Your task to perform on an android device: turn vacation reply on in the gmail app Image 0: 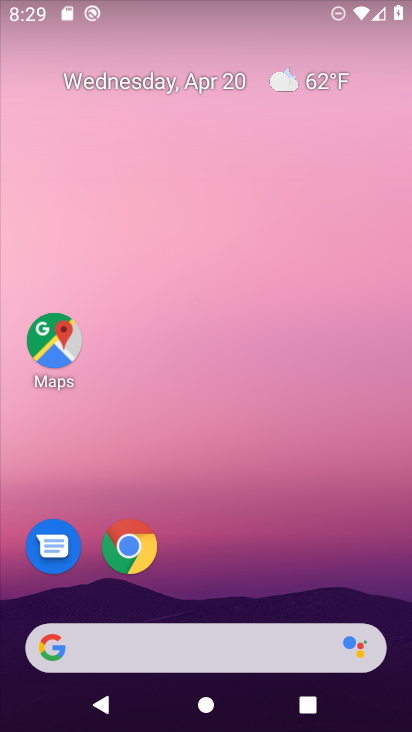
Step 0: drag from (271, 269) to (263, 82)
Your task to perform on an android device: turn vacation reply on in the gmail app Image 1: 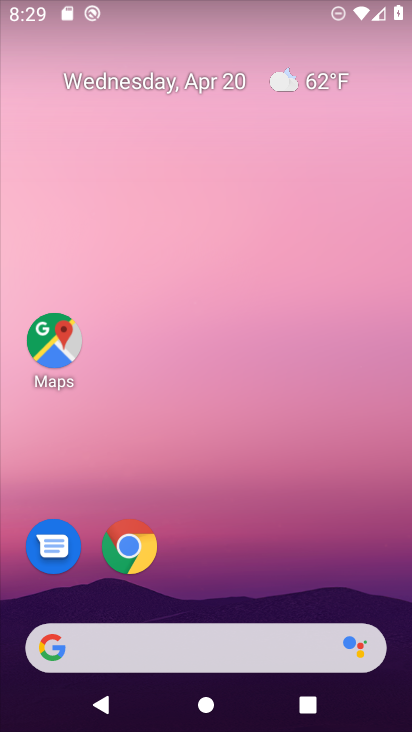
Step 1: drag from (252, 550) to (257, 57)
Your task to perform on an android device: turn vacation reply on in the gmail app Image 2: 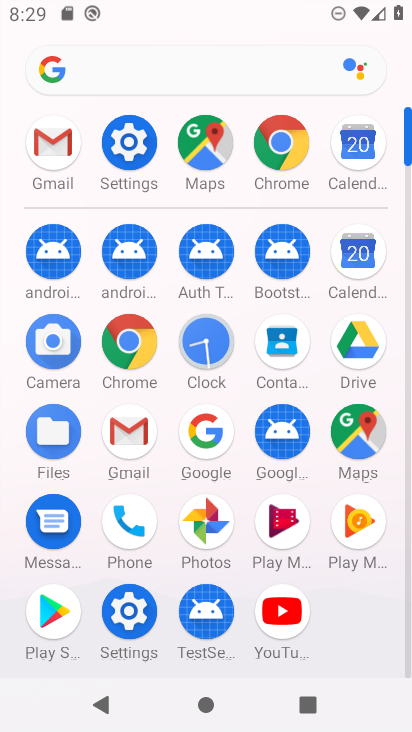
Step 2: click (51, 140)
Your task to perform on an android device: turn vacation reply on in the gmail app Image 3: 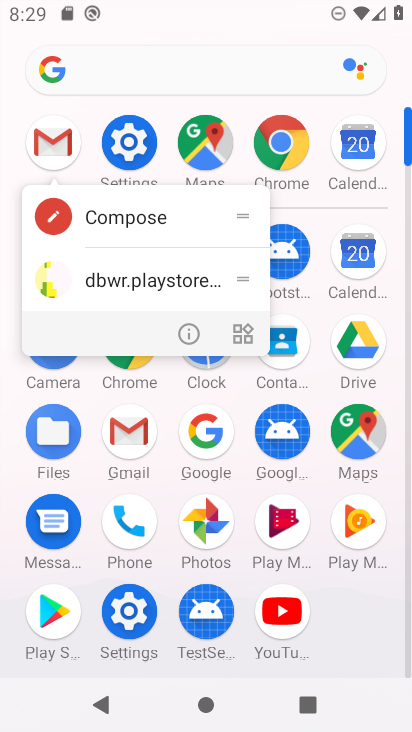
Step 3: click (51, 140)
Your task to perform on an android device: turn vacation reply on in the gmail app Image 4: 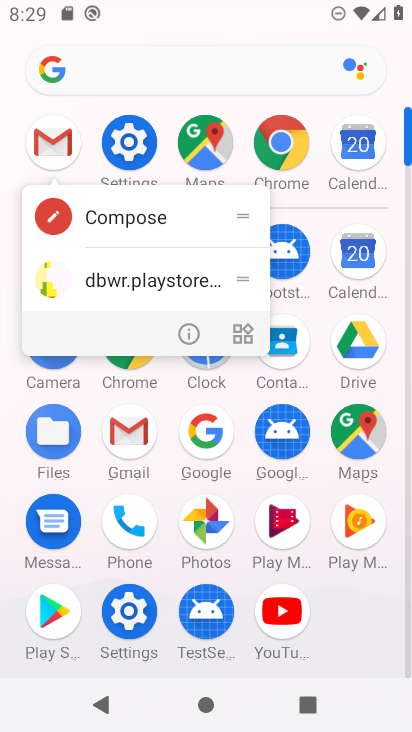
Step 4: click (51, 140)
Your task to perform on an android device: turn vacation reply on in the gmail app Image 5: 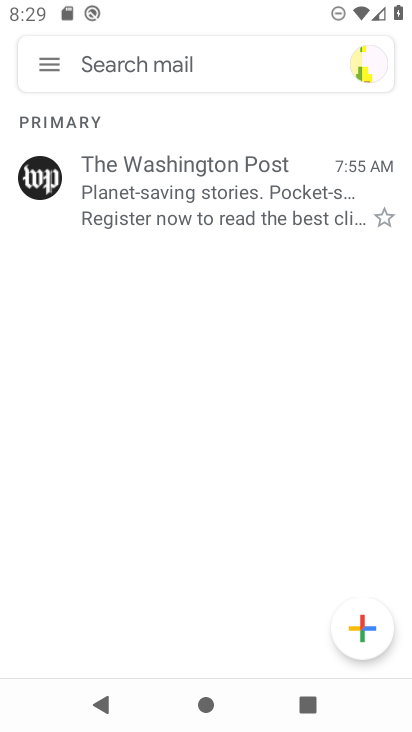
Step 5: click (49, 55)
Your task to perform on an android device: turn vacation reply on in the gmail app Image 6: 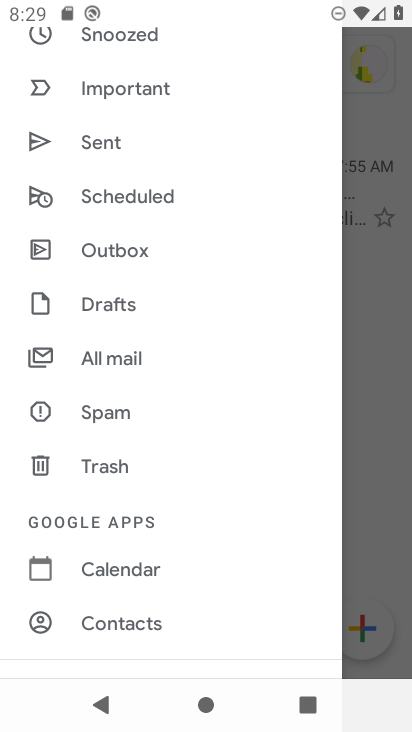
Step 6: drag from (203, 571) to (209, 211)
Your task to perform on an android device: turn vacation reply on in the gmail app Image 7: 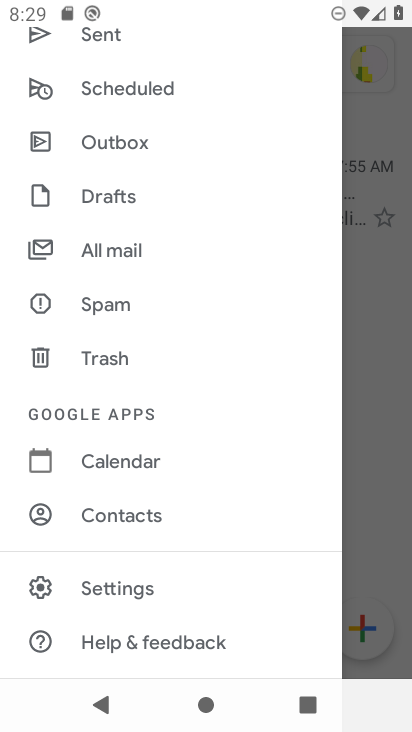
Step 7: click (155, 585)
Your task to perform on an android device: turn vacation reply on in the gmail app Image 8: 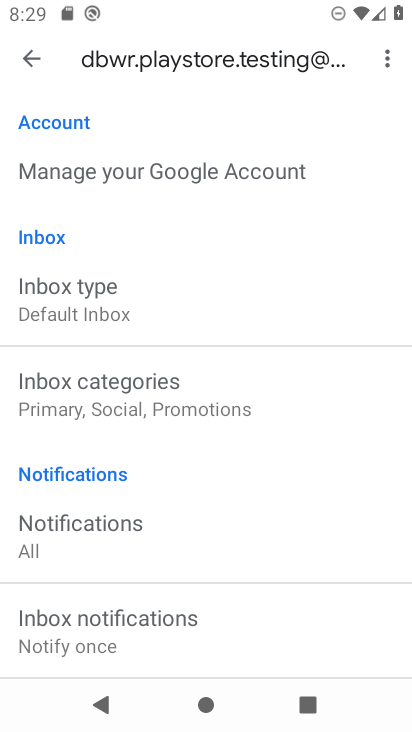
Step 8: drag from (250, 635) to (280, 225)
Your task to perform on an android device: turn vacation reply on in the gmail app Image 9: 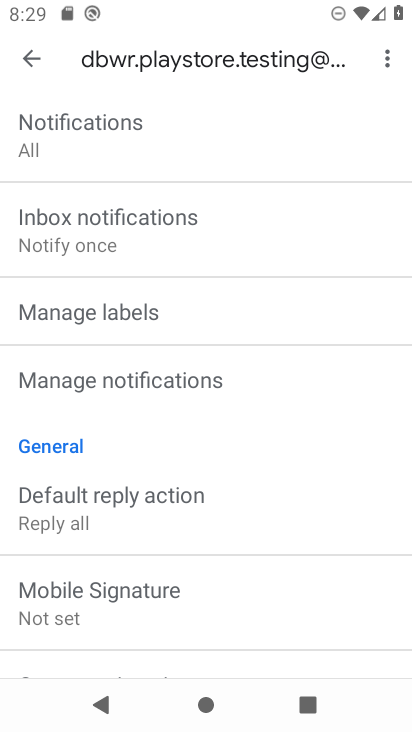
Step 9: drag from (270, 577) to (267, 155)
Your task to perform on an android device: turn vacation reply on in the gmail app Image 10: 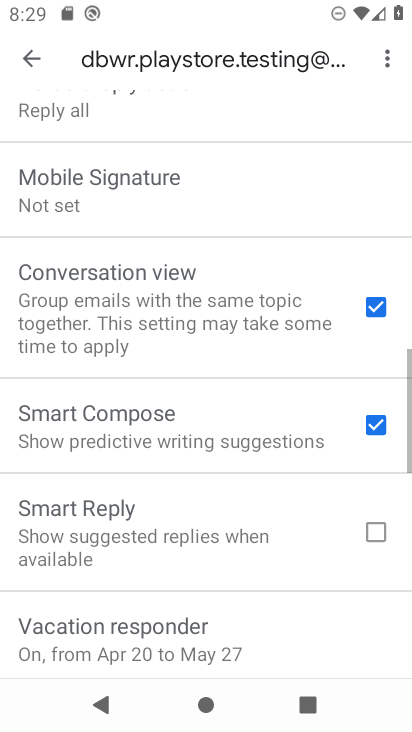
Step 10: drag from (240, 594) to (253, 284)
Your task to perform on an android device: turn vacation reply on in the gmail app Image 11: 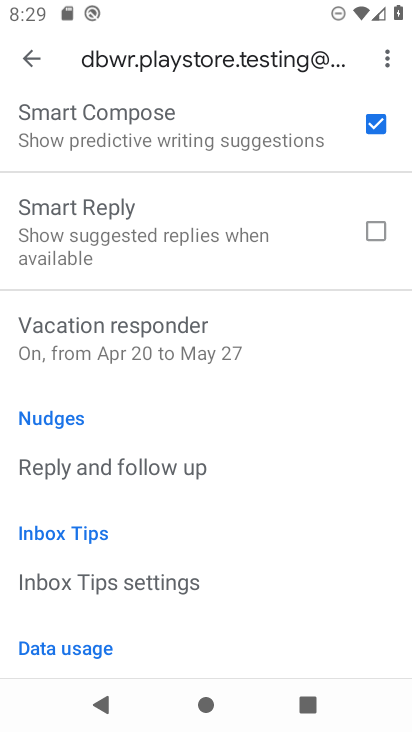
Step 11: click (257, 343)
Your task to perform on an android device: turn vacation reply on in the gmail app Image 12: 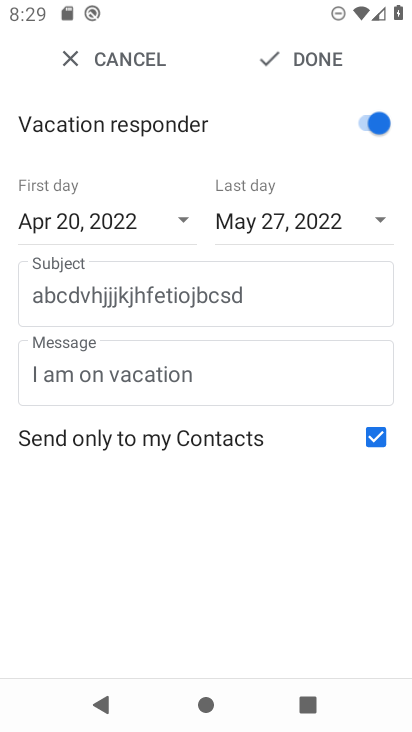
Step 12: task complete